Your task to perform on an android device: Do I have any events tomorrow? Image 0: 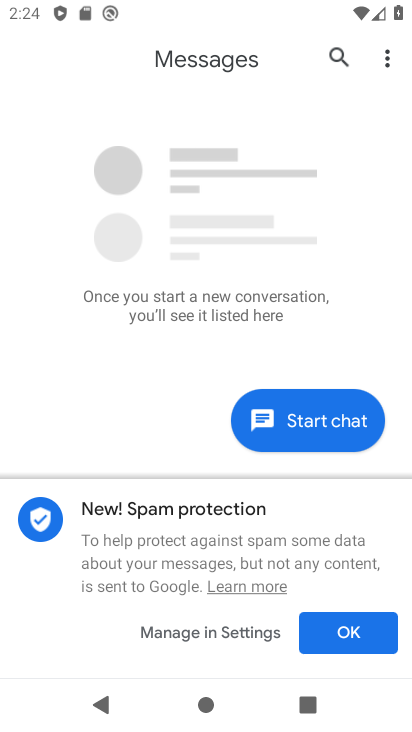
Step 0: press home button
Your task to perform on an android device: Do I have any events tomorrow? Image 1: 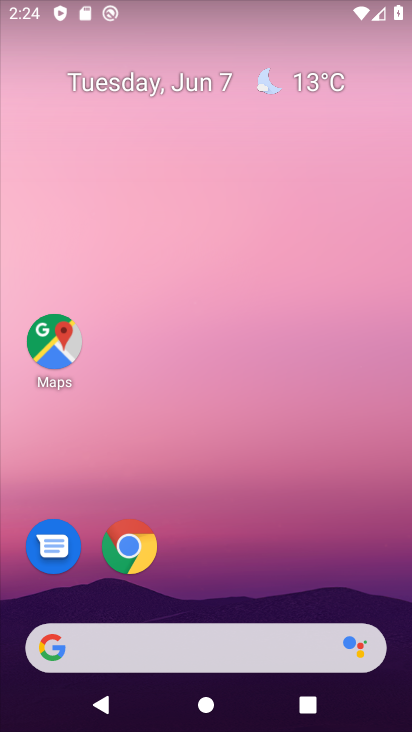
Step 1: drag from (299, 575) to (245, 208)
Your task to perform on an android device: Do I have any events tomorrow? Image 2: 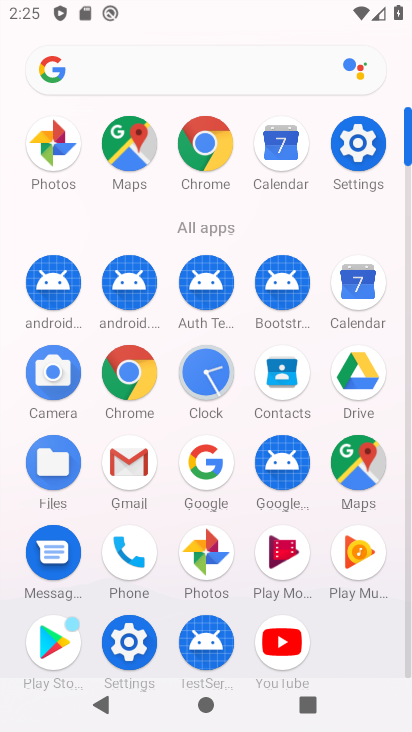
Step 2: click (360, 309)
Your task to perform on an android device: Do I have any events tomorrow? Image 3: 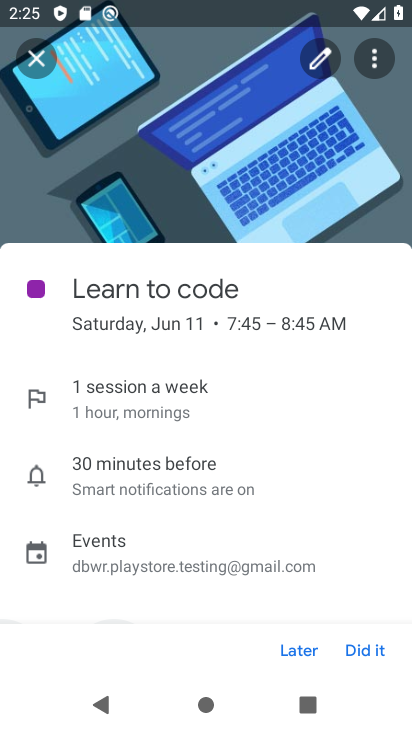
Step 3: click (39, 56)
Your task to perform on an android device: Do I have any events tomorrow? Image 4: 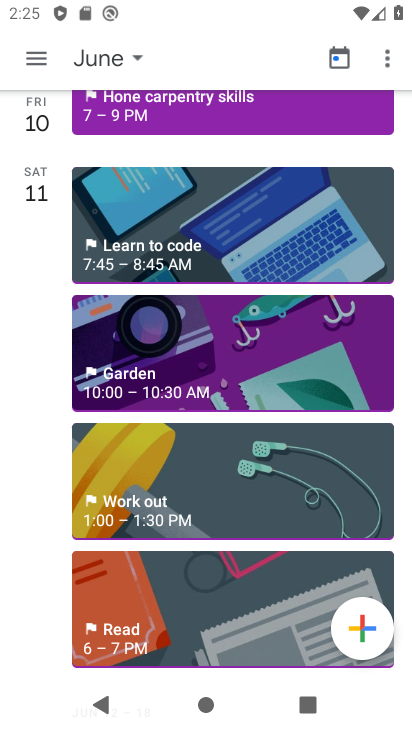
Step 4: drag from (164, 165) to (188, 404)
Your task to perform on an android device: Do I have any events tomorrow? Image 5: 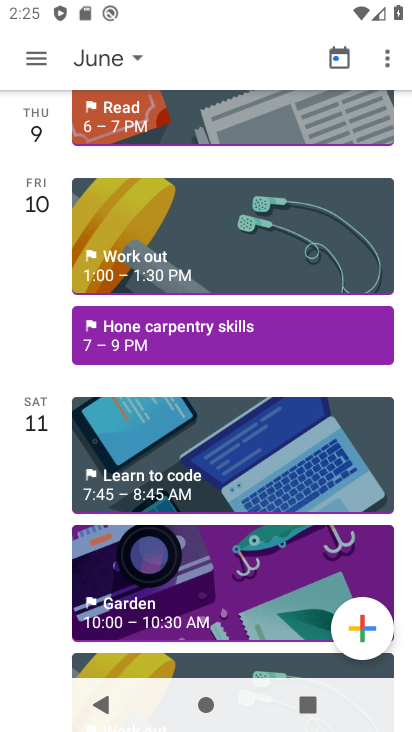
Step 5: drag from (154, 150) to (183, 368)
Your task to perform on an android device: Do I have any events tomorrow? Image 6: 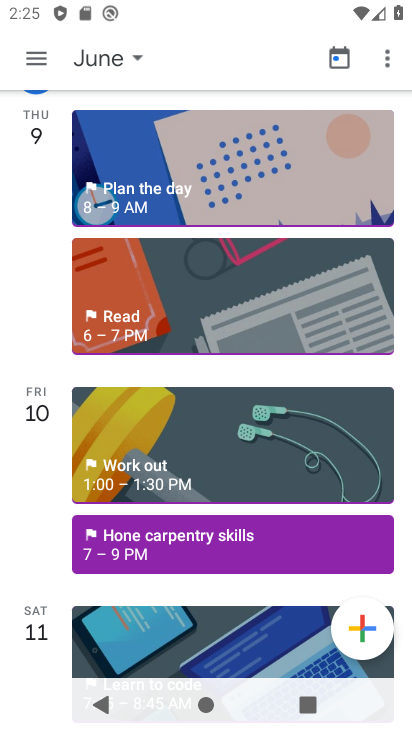
Step 6: drag from (174, 159) to (207, 411)
Your task to perform on an android device: Do I have any events tomorrow? Image 7: 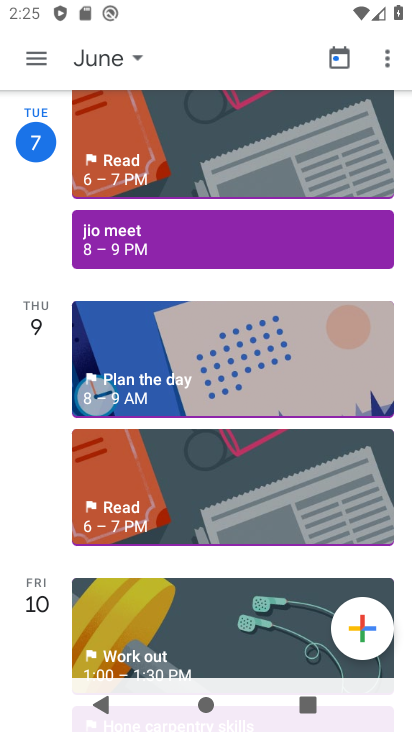
Step 7: click (129, 66)
Your task to perform on an android device: Do I have any events tomorrow? Image 8: 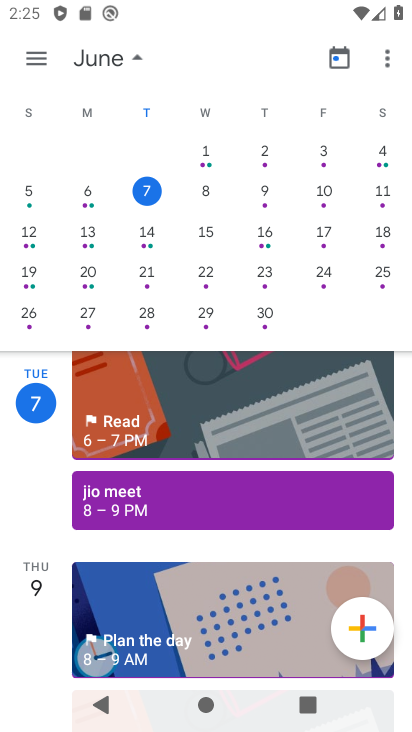
Step 8: click (202, 186)
Your task to perform on an android device: Do I have any events tomorrow? Image 9: 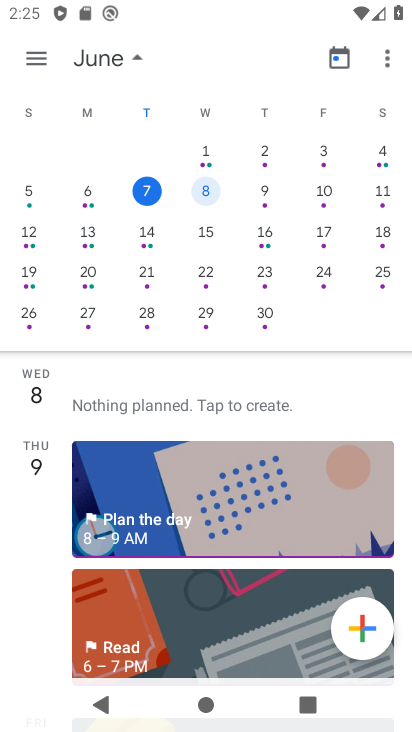
Step 9: task complete